Your task to perform on an android device: turn off translation in the chrome app Image 0: 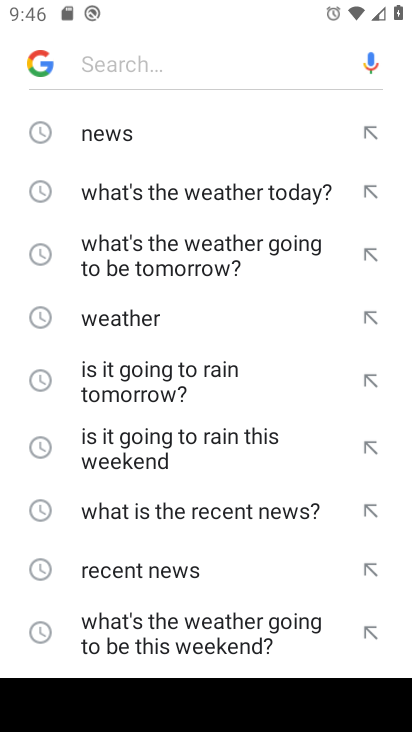
Step 0: press home button
Your task to perform on an android device: turn off translation in the chrome app Image 1: 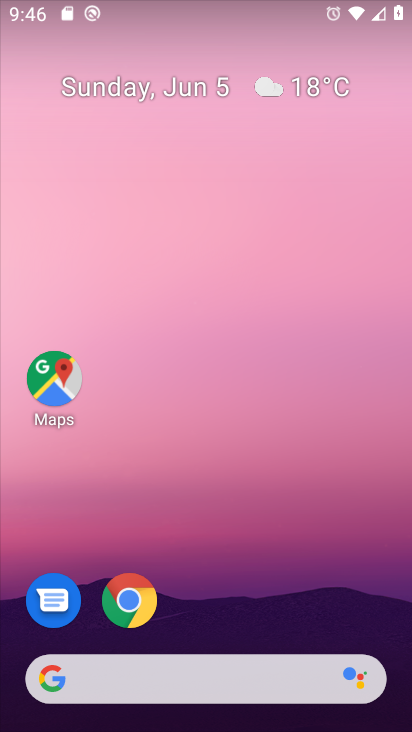
Step 1: click (133, 593)
Your task to perform on an android device: turn off translation in the chrome app Image 2: 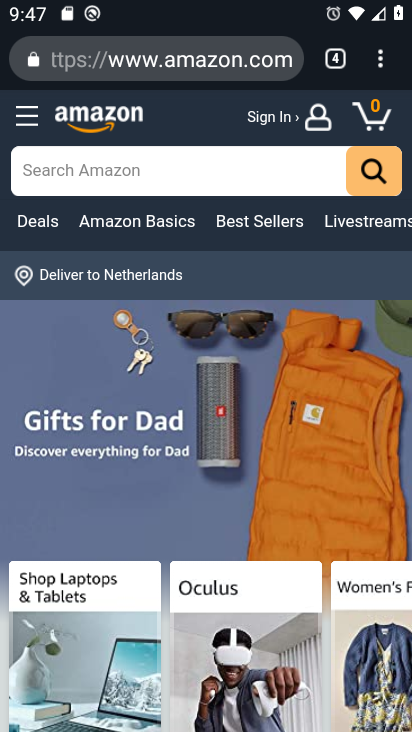
Step 2: click (375, 67)
Your task to perform on an android device: turn off translation in the chrome app Image 3: 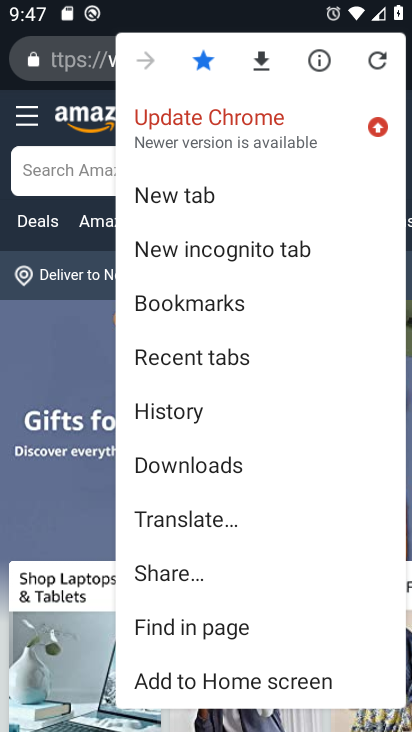
Step 3: drag from (253, 527) to (300, 223)
Your task to perform on an android device: turn off translation in the chrome app Image 4: 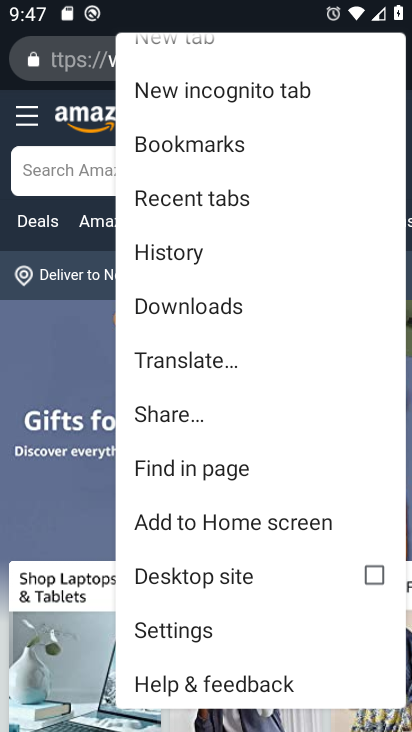
Step 4: click (214, 620)
Your task to perform on an android device: turn off translation in the chrome app Image 5: 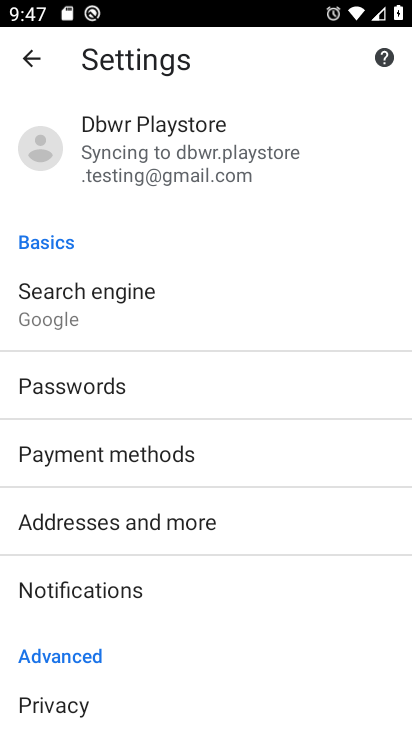
Step 5: drag from (242, 473) to (248, 181)
Your task to perform on an android device: turn off translation in the chrome app Image 6: 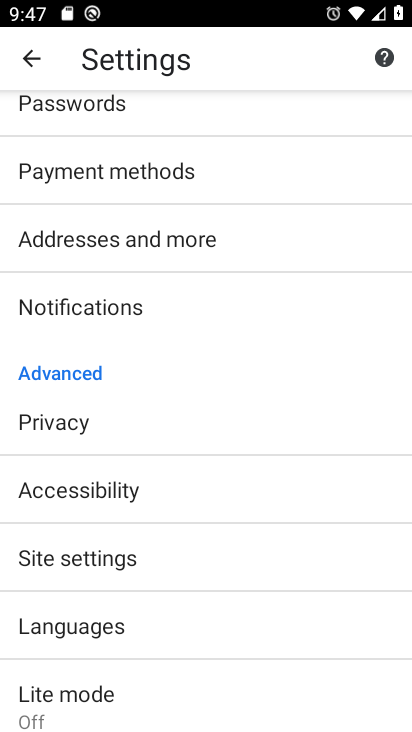
Step 6: drag from (221, 615) to (222, 284)
Your task to perform on an android device: turn off translation in the chrome app Image 7: 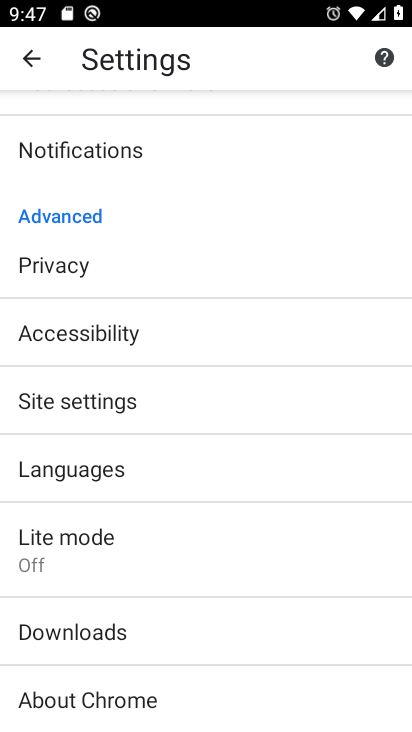
Step 7: click (206, 462)
Your task to perform on an android device: turn off translation in the chrome app Image 8: 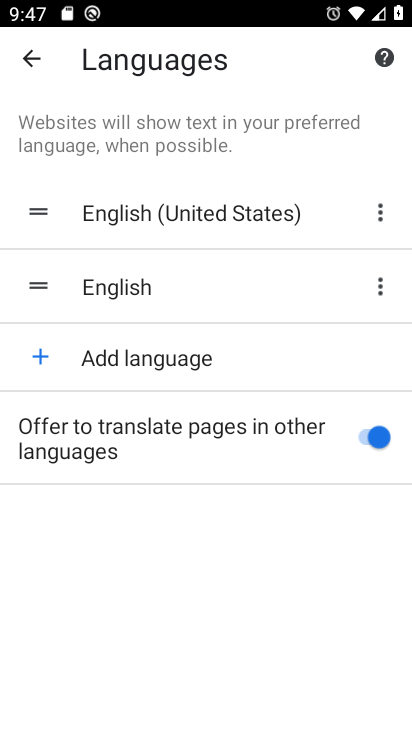
Step 8: click (370, 435)
Your task to perform on an android device: turn off translation in the chrome app Image 9: 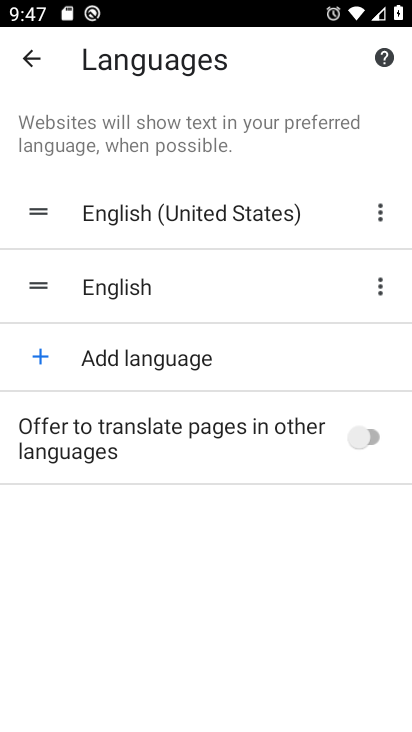
Step 9: task complete